Your task to perform on an android device: Open Chrome and go to settings Image 0: 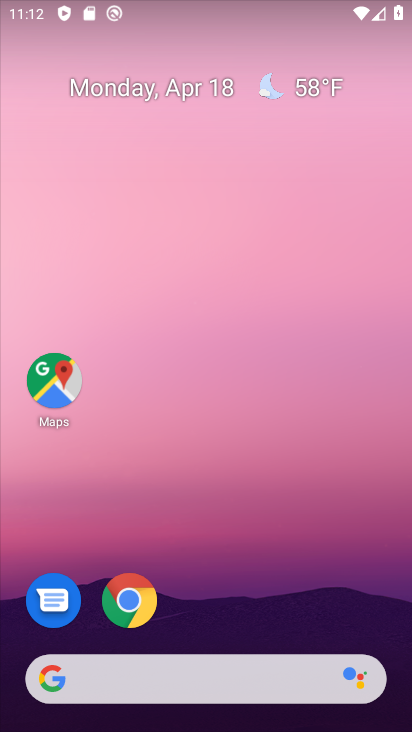
Step 0: click (137, 604)
Your task to perform on an android device: Open Chrome and go to settings Image 1: 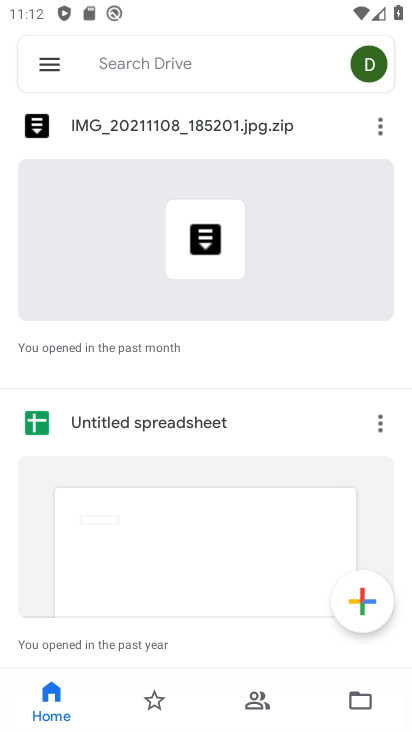
Step 1: press home button
Your task to perform on an android device: Open Chrome and go to settings Image 2: 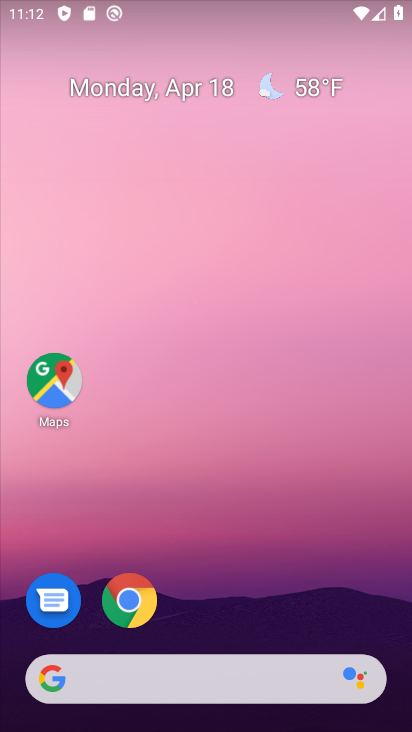
Step 2: click (136, 609)
Your task to perform on an android device: Open Chrome and go to settings Image 3: 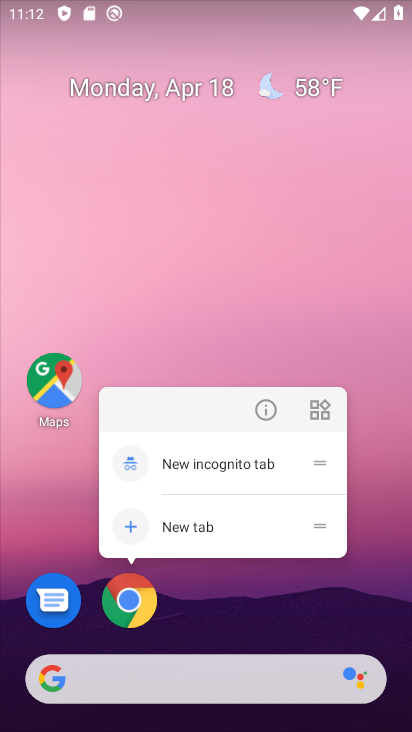
Step 3: click (139, 593)
Your task to perform on an android device: Open Chrome and go to settings Image 4: 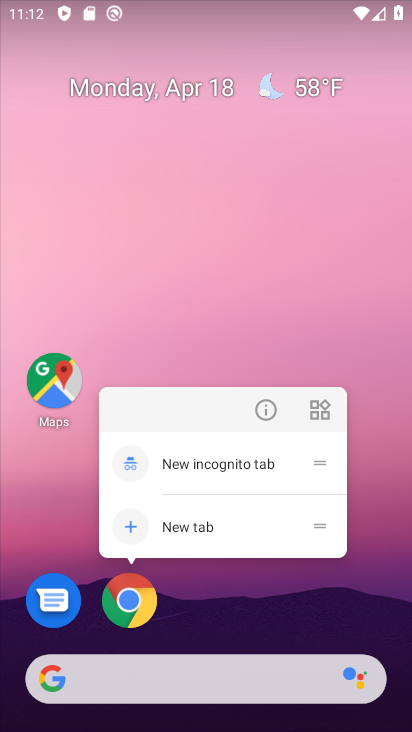
Step 4: click (133, 607)
Your task to perform on an android device: Open Chrome and go to settings Image 5: 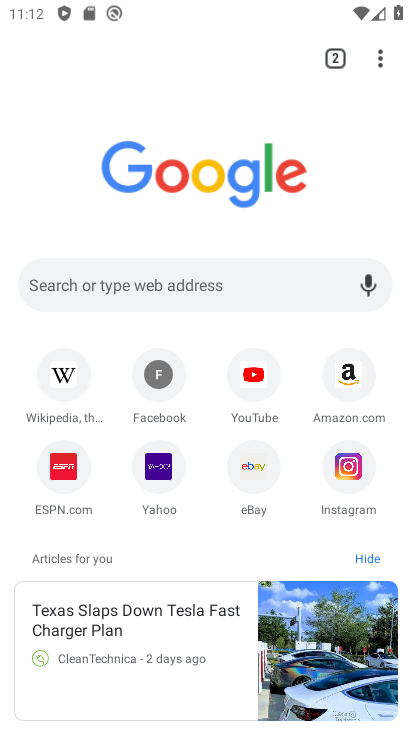
Step 5: click (383, 53)
Your task to perform on an android device: Open Chrome and go to settings Image 6: 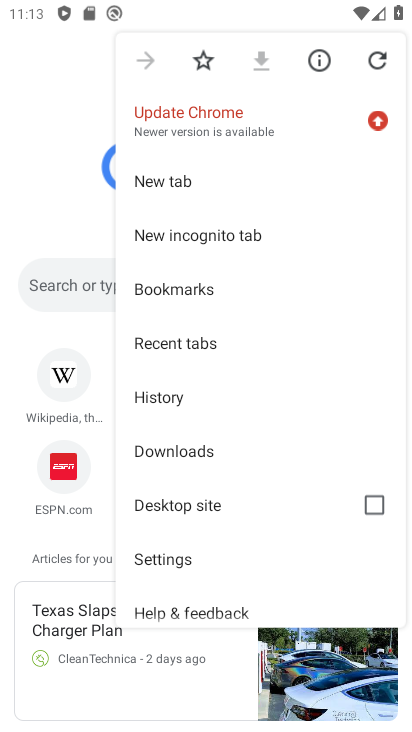
Step 6: click (181, 566)
Your task to perform on an android device: Open Chrome and go to settings Image 7: 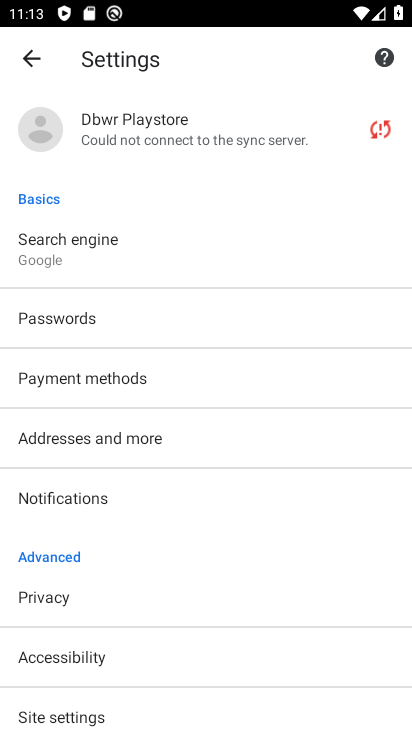
Step 7: task complete